Your task to perform on an android device: delete a single message in the gmail app Image 0: 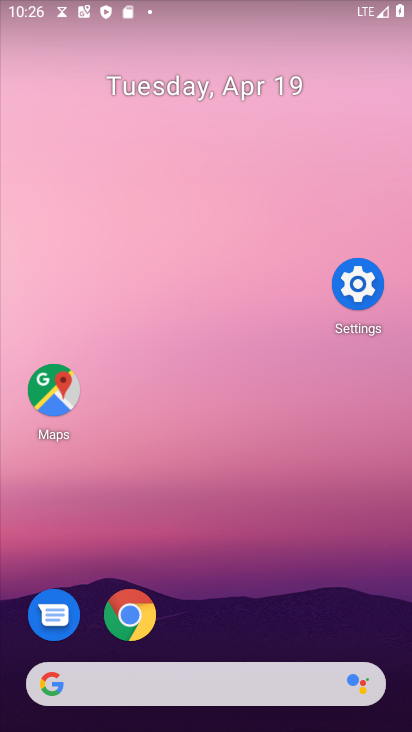
Step 0: drag from (216, 598) to (303, 232)
Your task to perform on an android device: delete a single message in the gmail app Image 1: 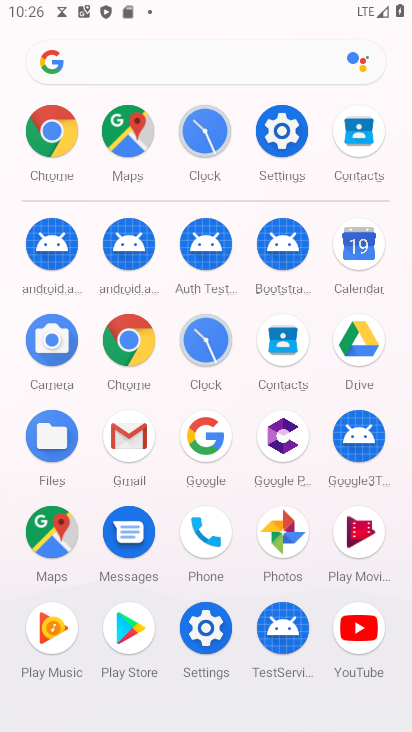
Step 1: click (127, 430)
Your task to perform on an android device: delete a single message in the gmail app Image 2: 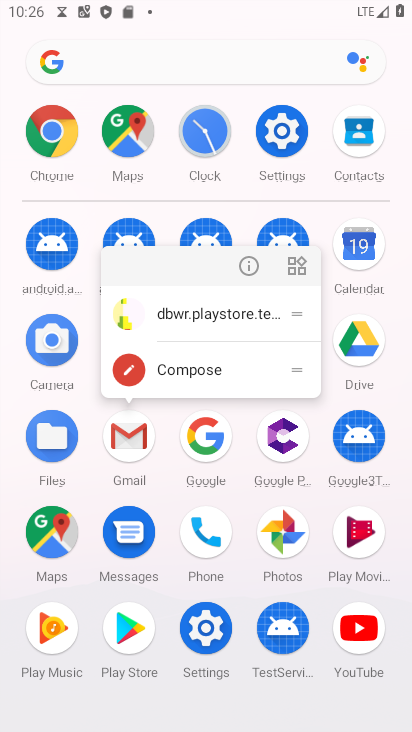
Step 2: click (249, 272)
Your task to perform on an android device: delete a single message in the gmail app Image 3: 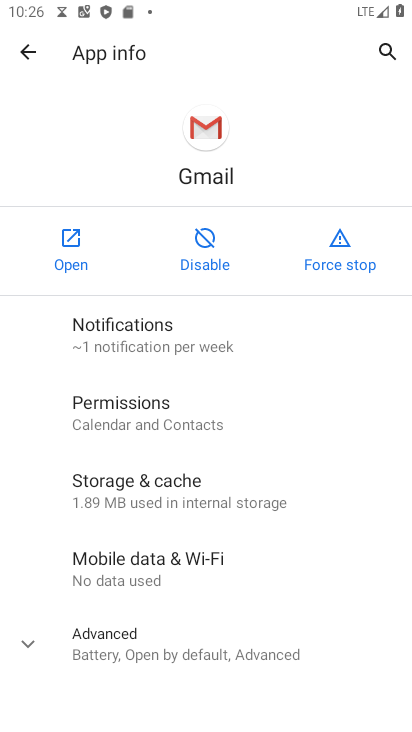
Step 3: click (53, 227)
Your task to perform on an android device: delete a single message in the gmail app Image 4: 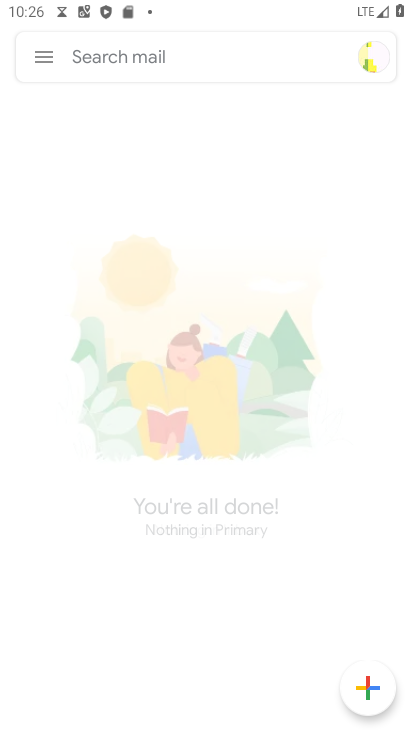
Step 4: drag from (246, 516) to (284, 282)
Your task to perform on an android device: delete a single message in the gmail app Image 5: 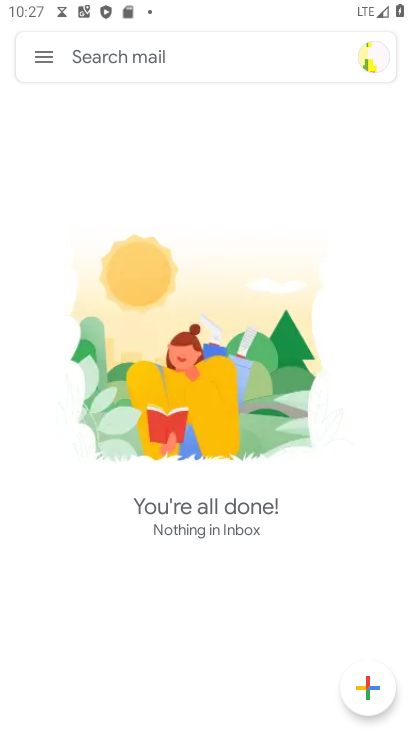
Step 5: drag from (199, 584) to (276, 175)
Your task to perform on an android device: delete a single message in the gmail app Image 6: 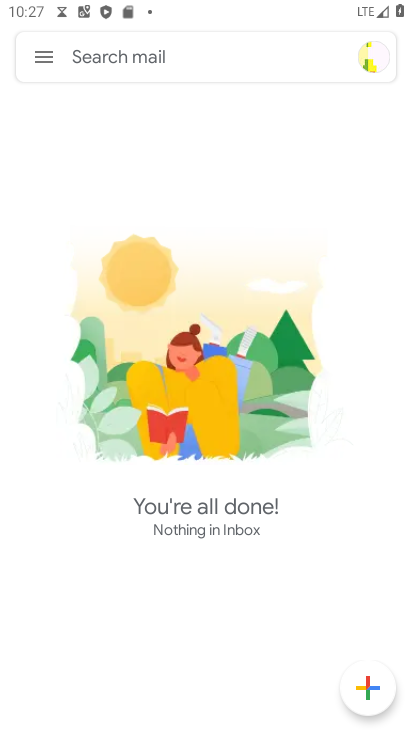
Step 6: drag from (247, 470) to (260, 291)
Your task to perform on an android device: delete a single message in the gmail app Image 7: 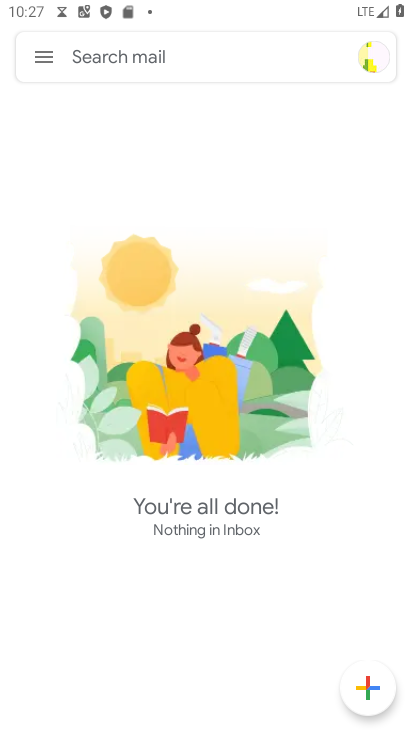
Step 7: click (43, 35)
Your task to perform on an android device: delete a single message in the gmail app Image 8: 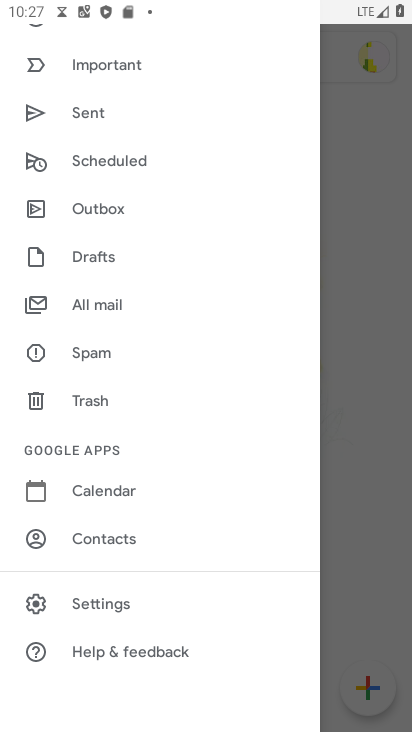
Step 8: task complete